Your task to perform on an android device: add a label to a message in the gmail app Image 0: 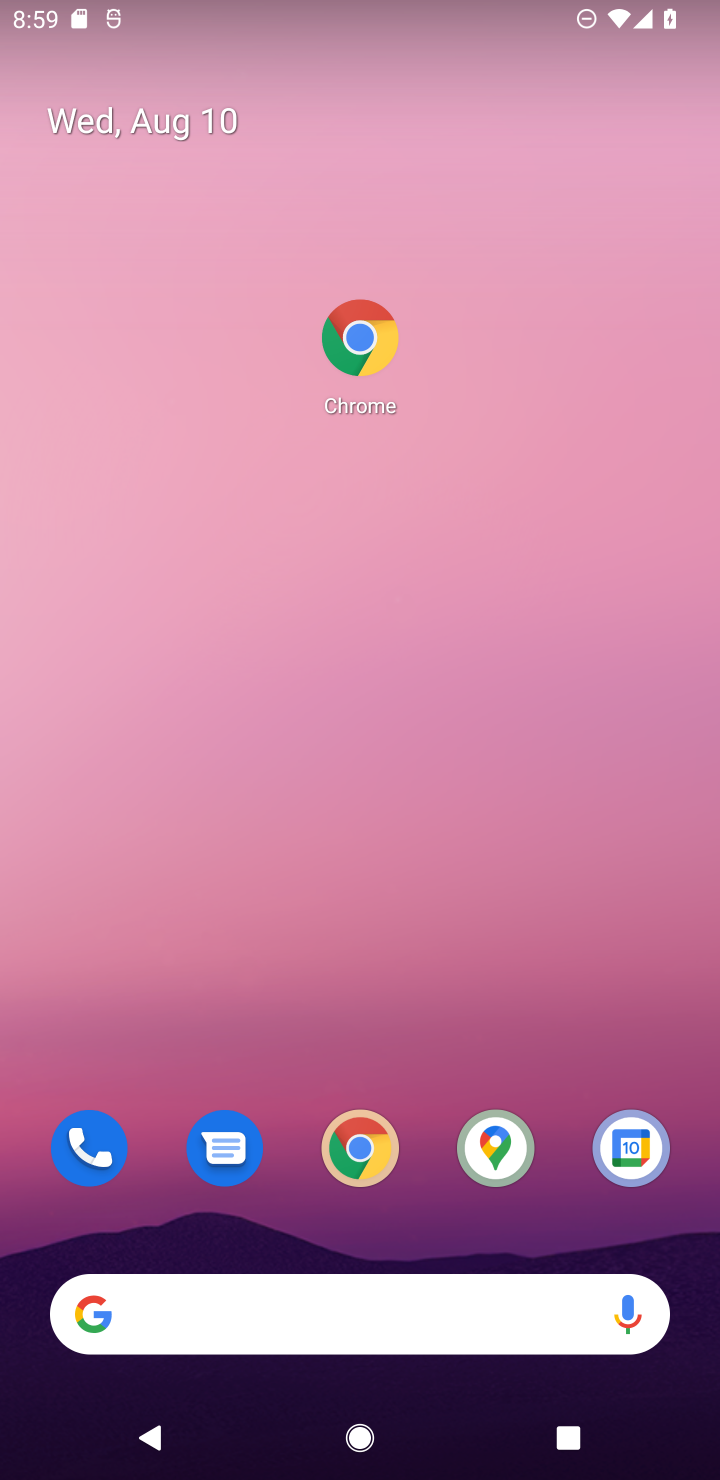
Step 0: drag from (433, 1096) to (507, 488)
Your task to perform on an android device: add a label to a message in the gmail app Image 1: 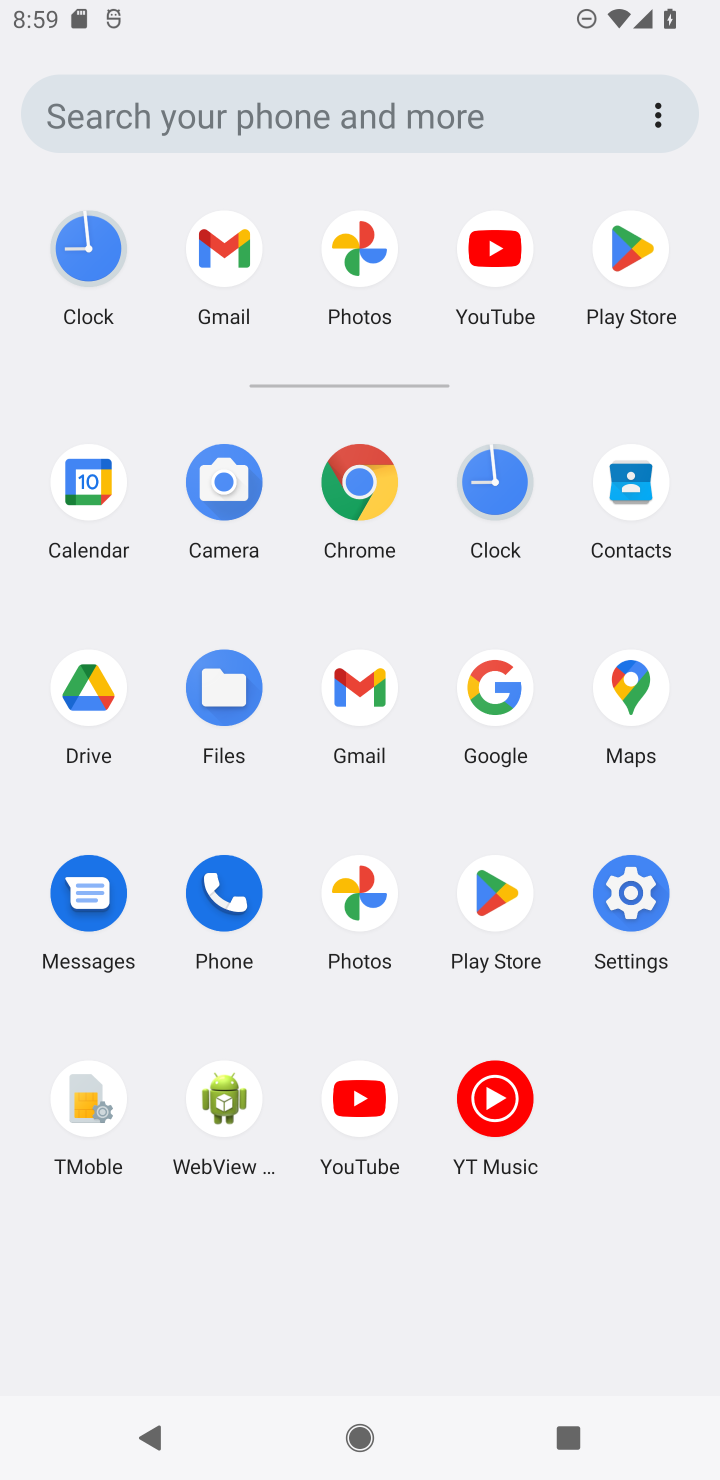
Step 1: click (210, 260)
Your task to perform on an android device: add a label to a message in the gmail app Image 2: 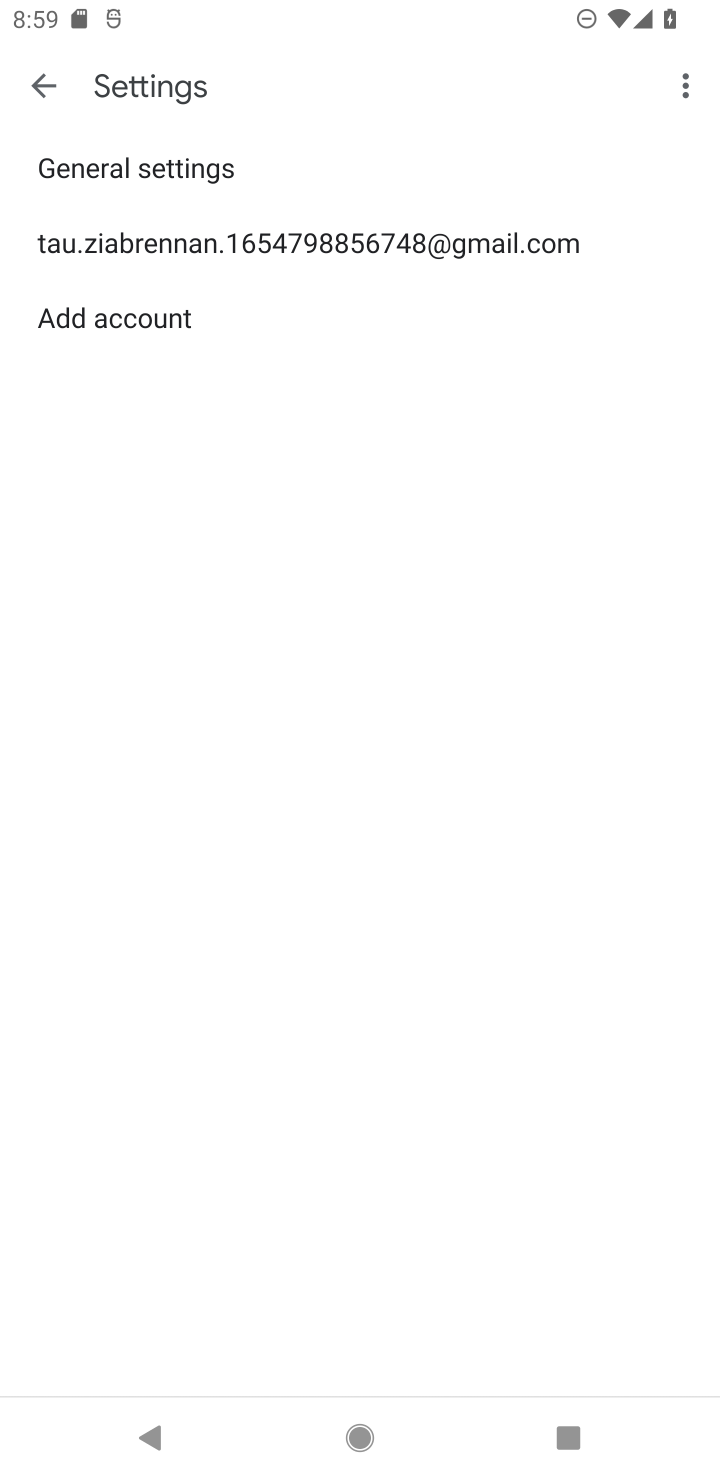
Step 2: click (35, 82)
Your task to perform on an android device: add a label to a message in the gmail app Image 3: 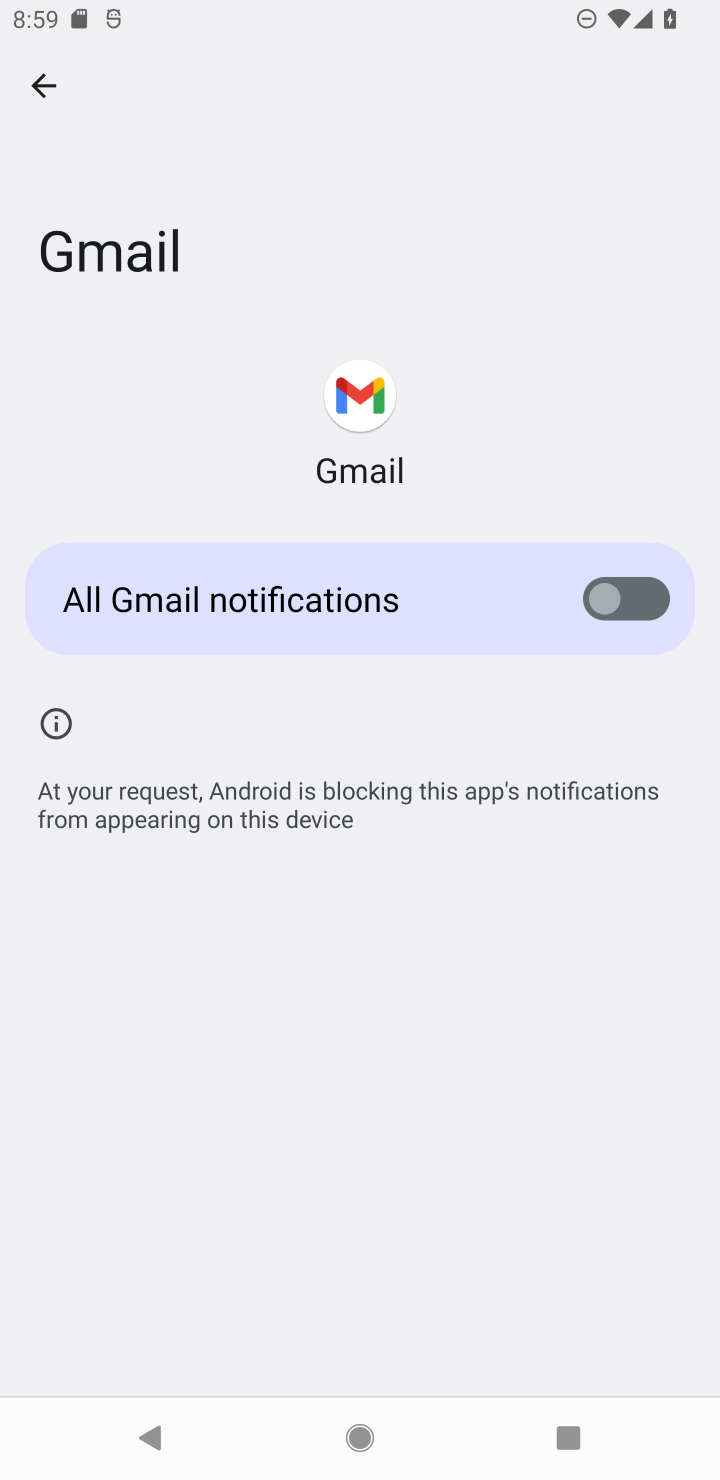
Step 3: click (35, 82)
Your task to perform on an android device: add a label to a message in the gmail app Image 4: 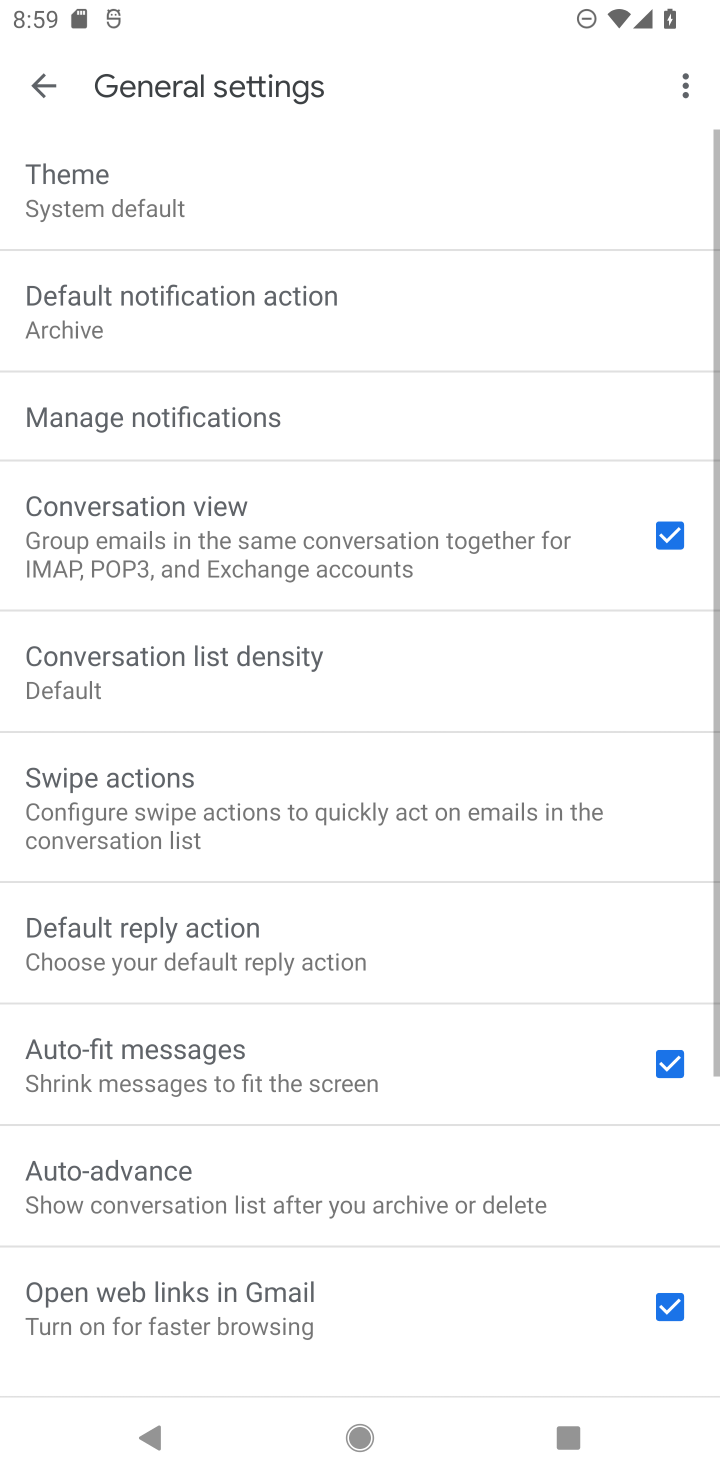
Step 4: click (35, 82)
Your task to perform on an android device: add a label to a message in the gmail app Image 5: 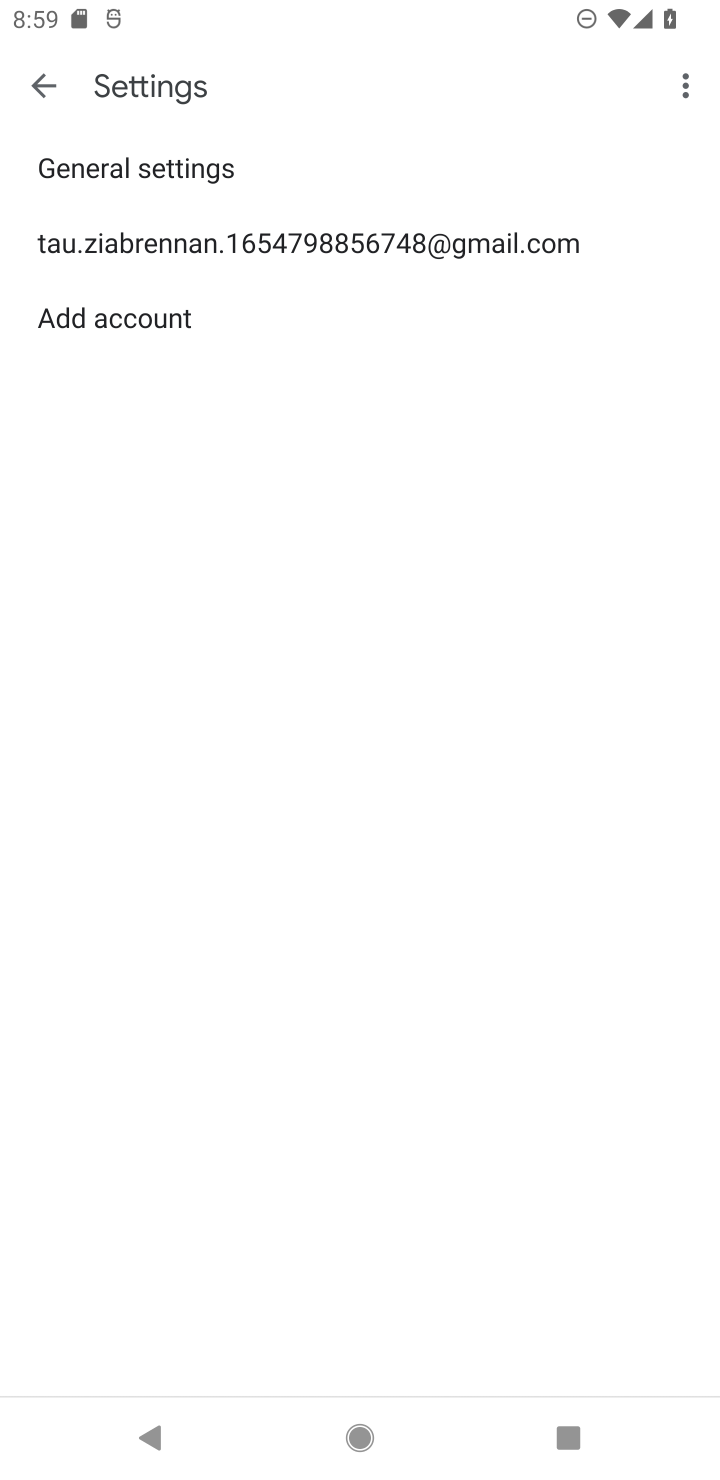
Step 5: click (35, 82)
Your task to perform on an android device: add a label to a message in the gmail app Image 6: 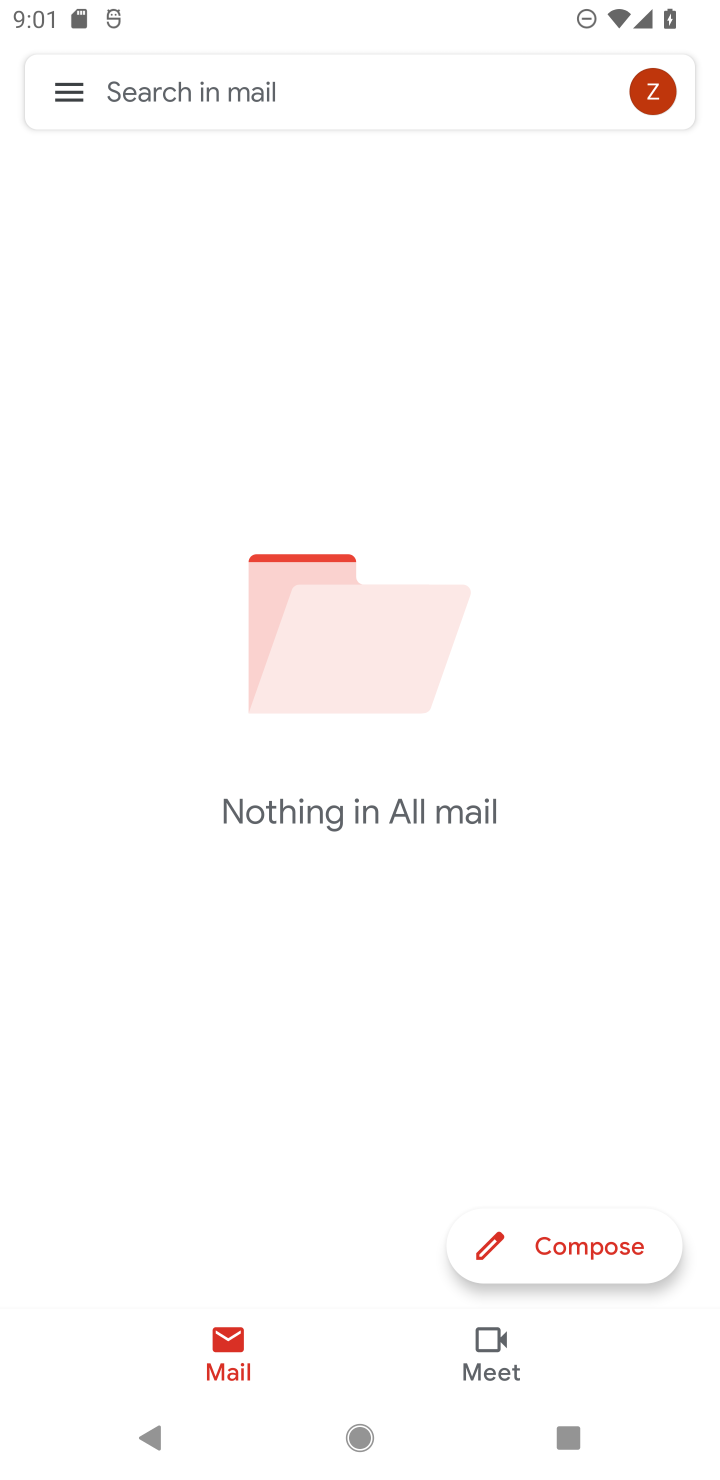
Step 6: task complete